Your task to perform on an android device: Search for sushi restaurants on Maps Image 0: 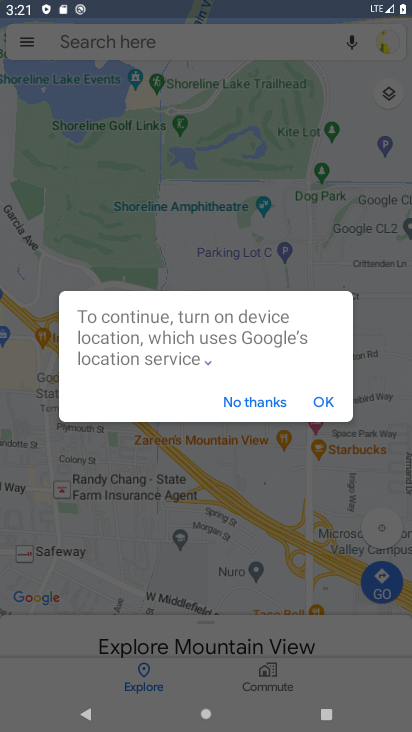
Step 0: click (321, 407)
Your task to perform on an android device: Search for sushi restaurants on Maps Image 1: 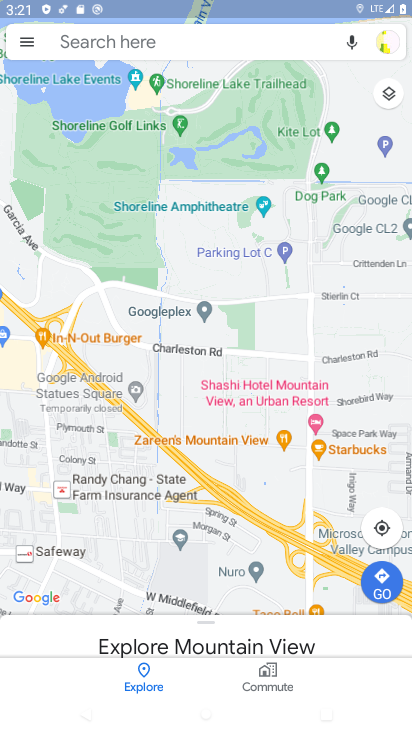
Step 1: click (168, 46)
Your task to perform on an android device: Search for sushi restaurants on Maps Image 2: 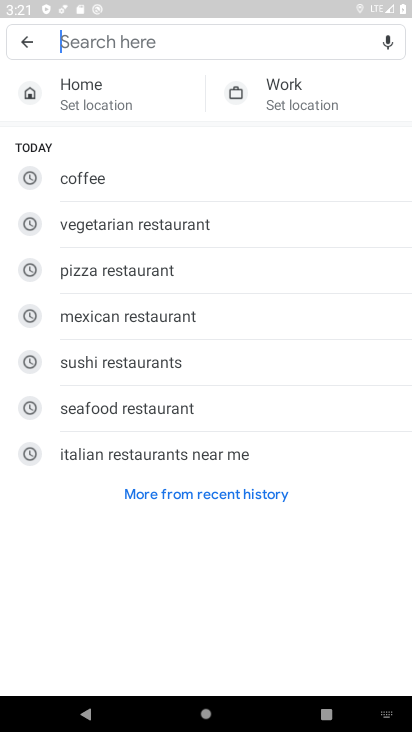
Step 2: click (131, 368)
Your task to perform on an android device: Search for sushi restaurants on Maps Image 3: 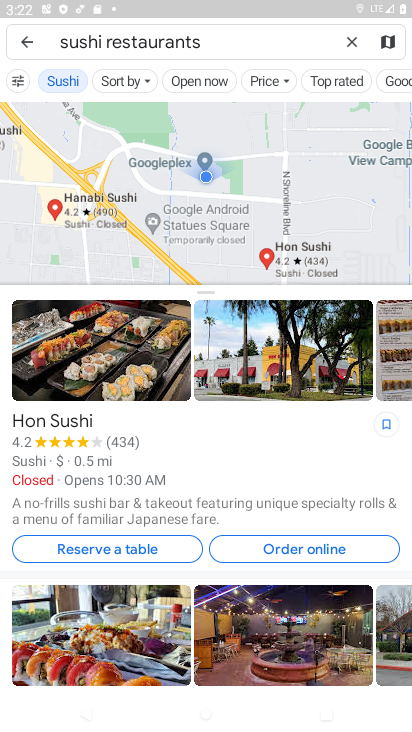
Step 3: task complete